Your task to perform on an android device: Go to sound settings Image 0: 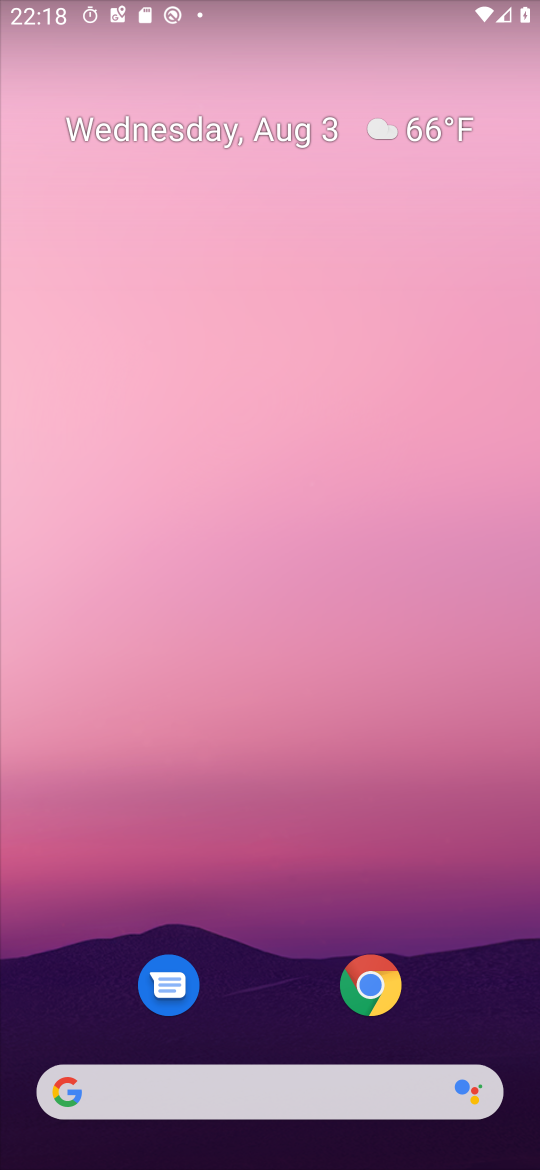
Step 0: drag from (283, 961) to (314, 269)
Your task to perform on an android device: Go to sound settings Image 1: 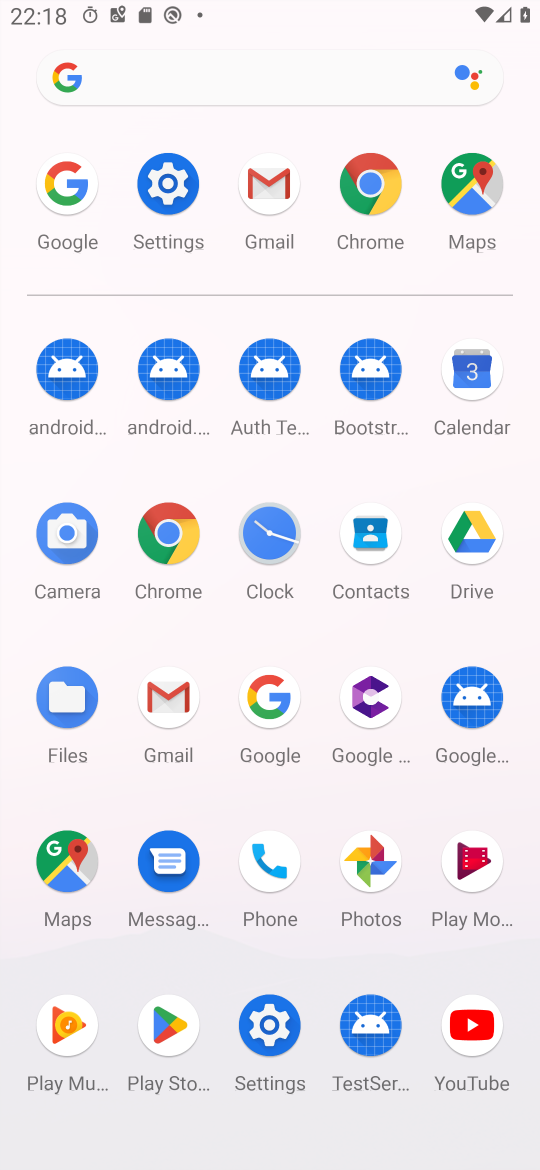
Step 1: click (169, 209)
Your task to perform on an android device: Go to sound settings Image 2: 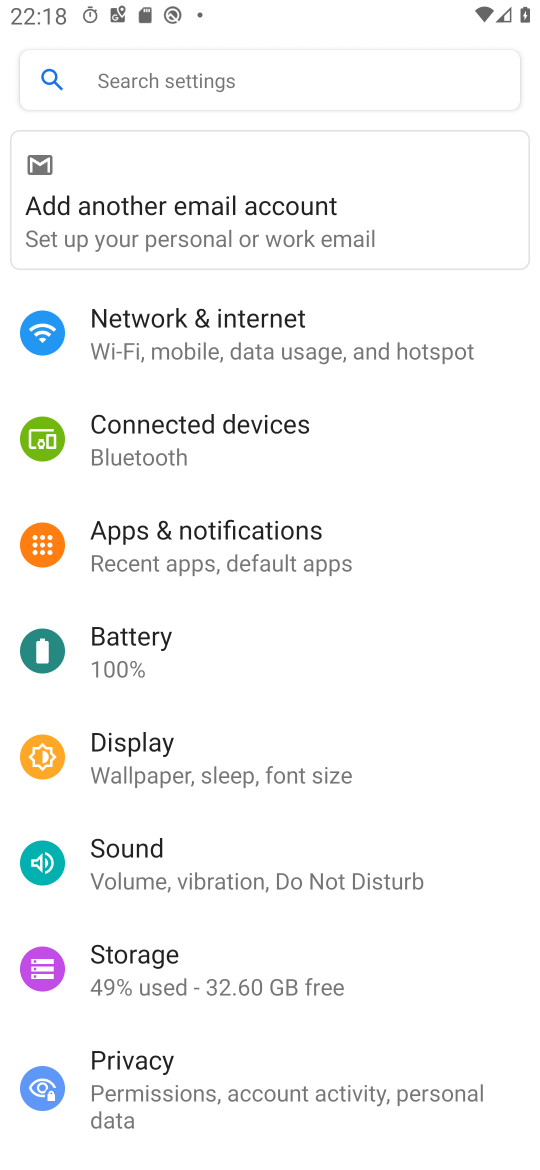
Step 2: click (157, 843)
Your task to perform on an android device: Go to sound settings Image 3: 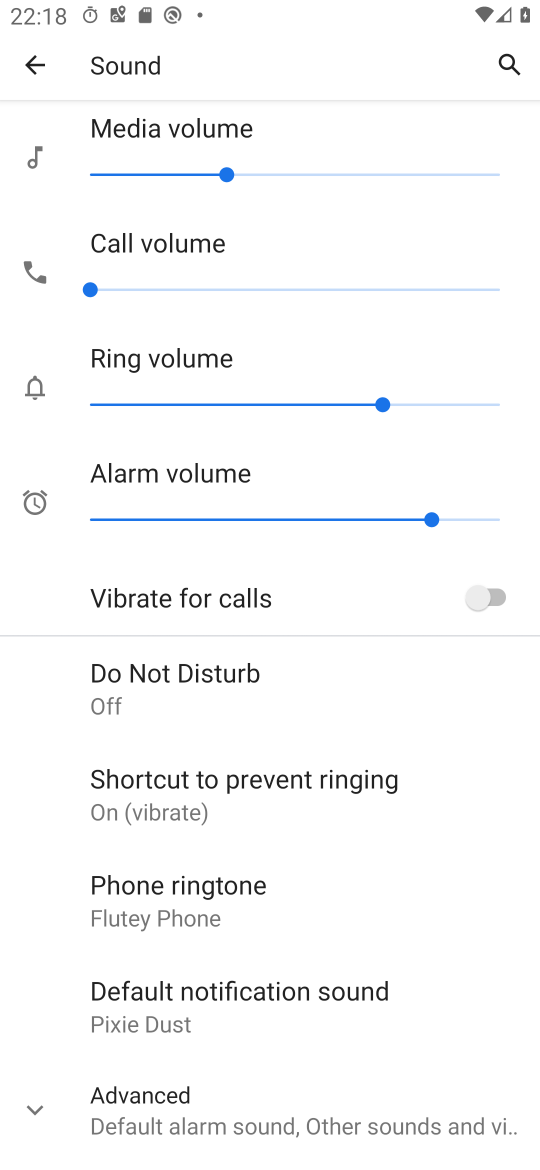
Step 3: task complete